Your task to perform on an android device: toggle wifi Image 0: 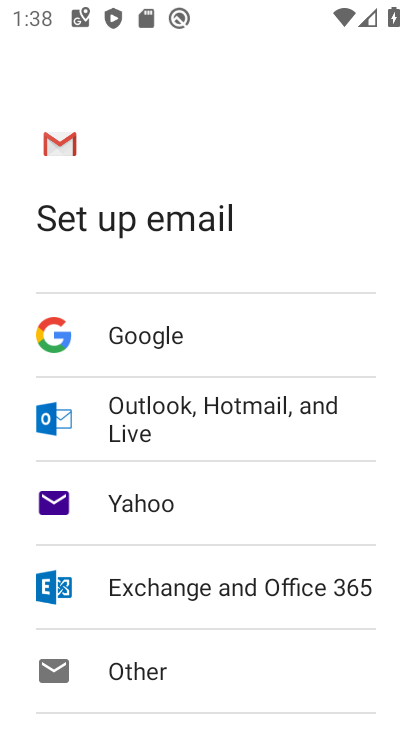
Step 0: press home button
Your task to perform on an android device: toggle wifi Image 1: 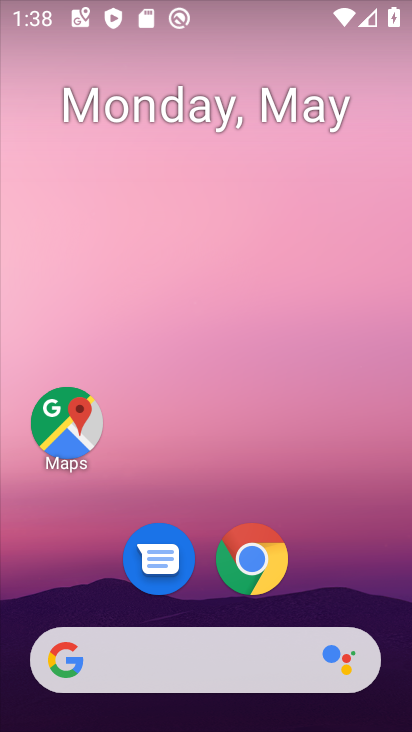
Step 1: drag from (351, 472) to (324, 133)
Your task to perform on an android device: toggle wifi Image 2: 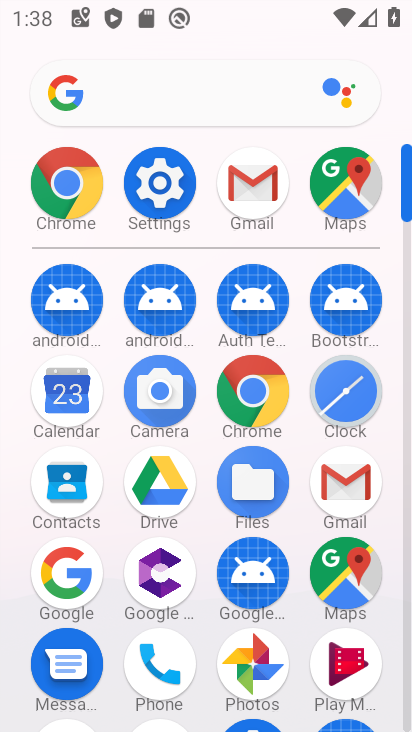
Step 2: click (167, 180)
Your task to perform on an android device: toggle wifi Image 3: 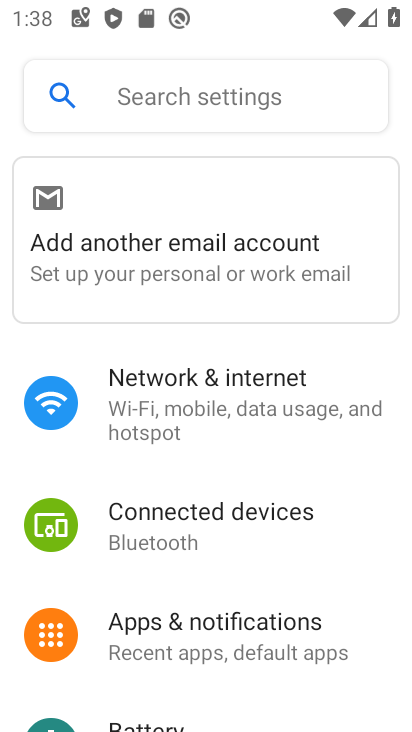
Step 3: click (214, 384)
Your task to perform on an android device: toggle wifi Image 4: 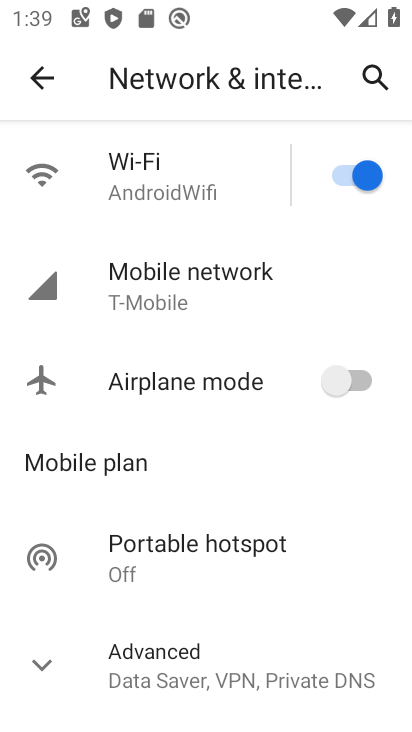
Step 4: click (188, 182)
Your task to perform on an android device: toggle wifi Image 5: 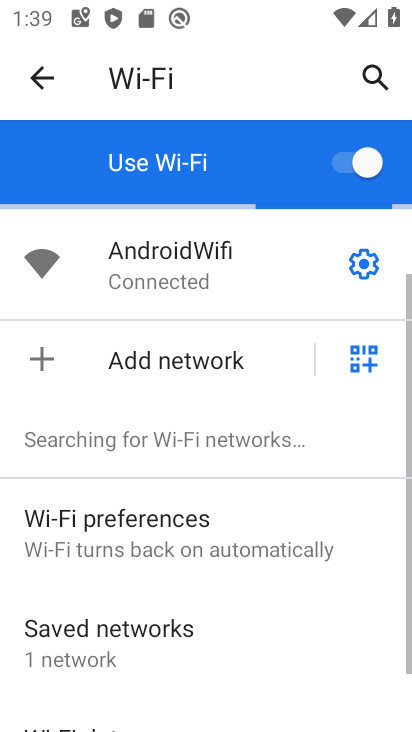
Step 5: task complete